Your task to perform on an android device: When is my next appointment? Image 0: 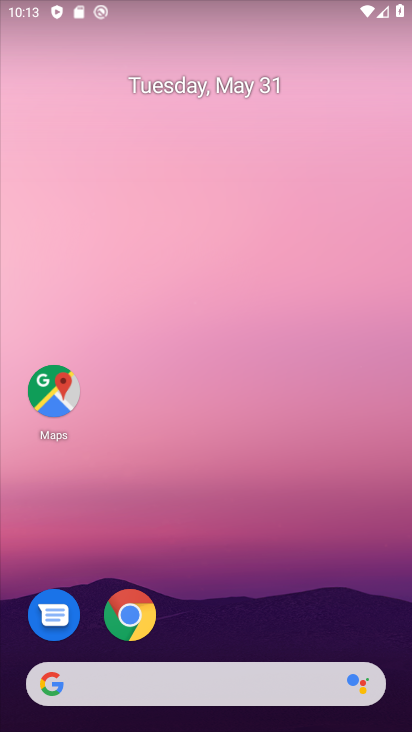
Step 0: drag from (404, 612) to (307, 108)
Your task to perform on an android device: When is my next appointment? Image 1: 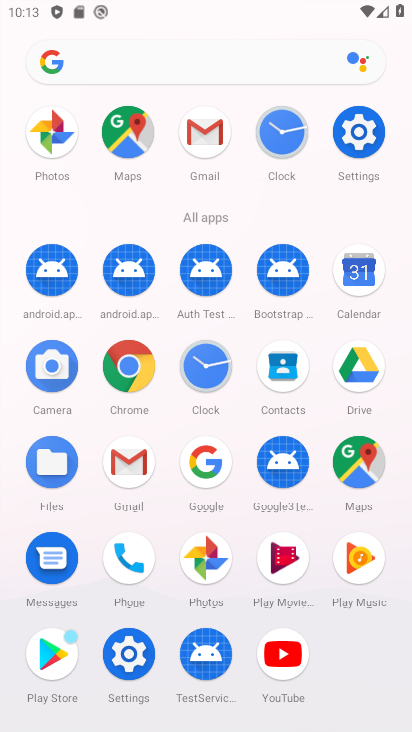
Step 1: click (365, 269)
Your task to perform on an android device: When is my next appointment? Image 2: 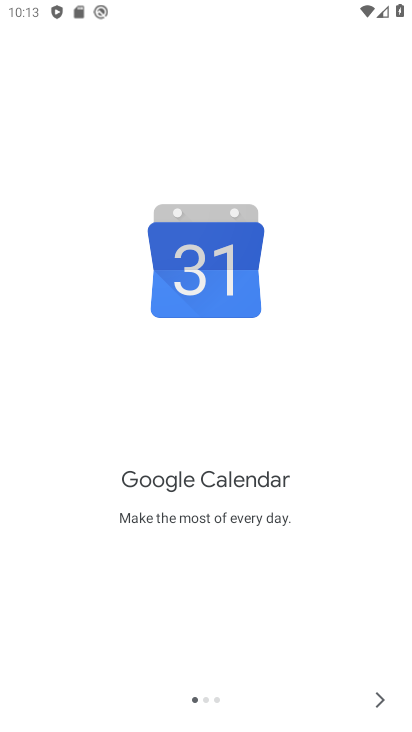
Step 2: press home button
Your task to perform on an android device: When is my next appointment? Image 3: 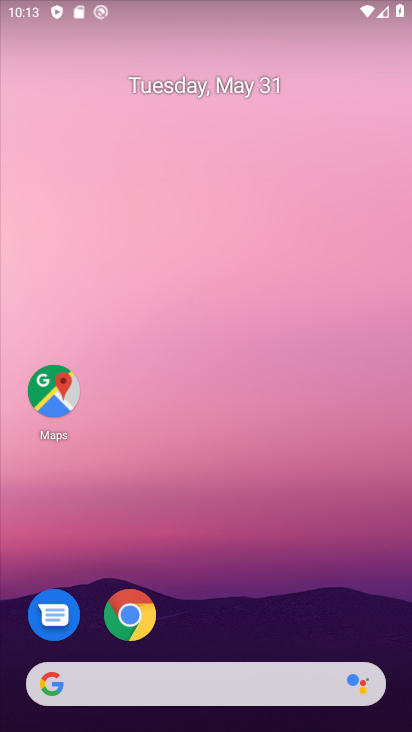
Step 3: drag from (348, 613) to (324, 149)
Your task to perform on an android device: When is my next appointment? Image 4: 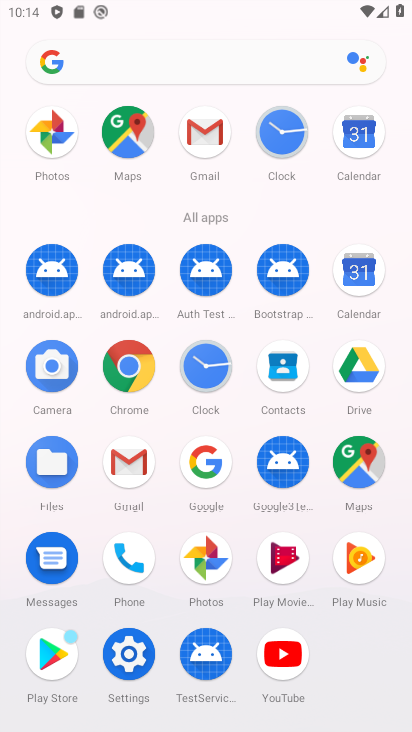
Step 4: click (342, 291)
Your task to perform on an android device: When is my next appointment? Image 5: 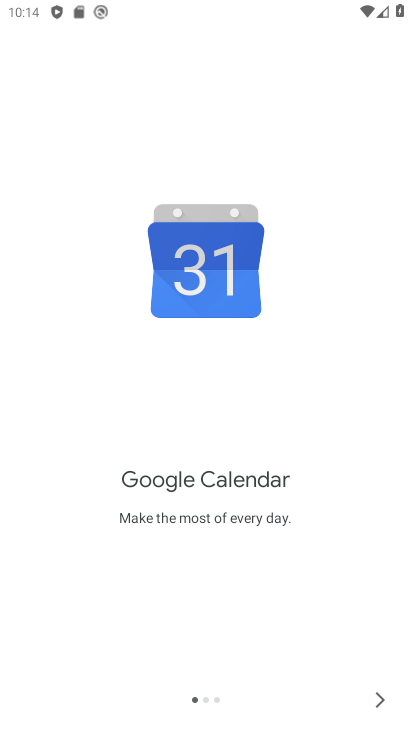
Step 5: click (375, 698)
Your task to perform on an android device: When is my next appointment? Image 6: 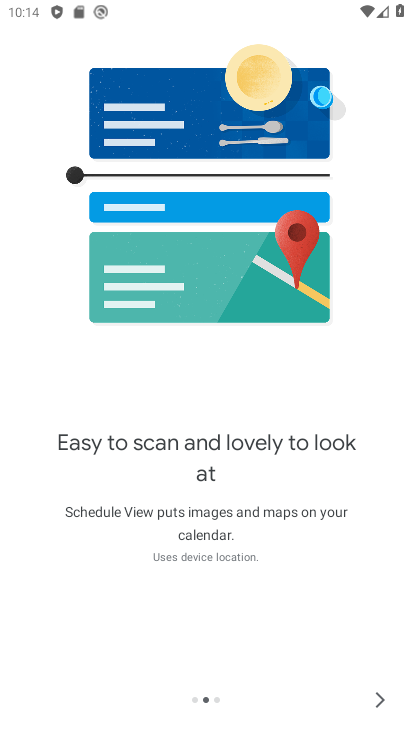
Step 6: click (375, 697)
Your task to perform on an android device: When is my next appointment? Image 7: 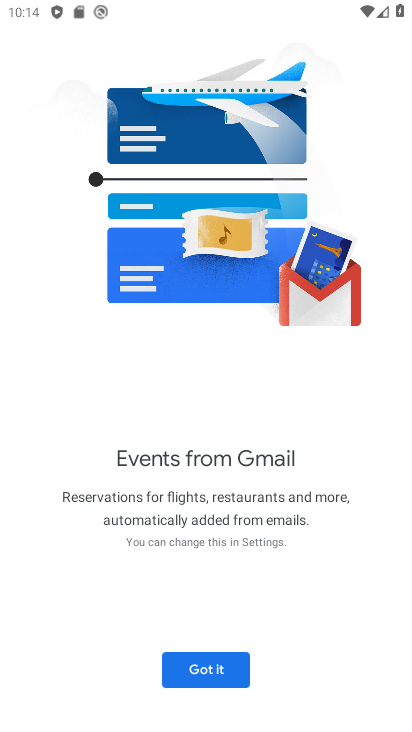
Step 7: click (196, 660)
Your task to perform on an android device: When is my next appointment? Image 8: 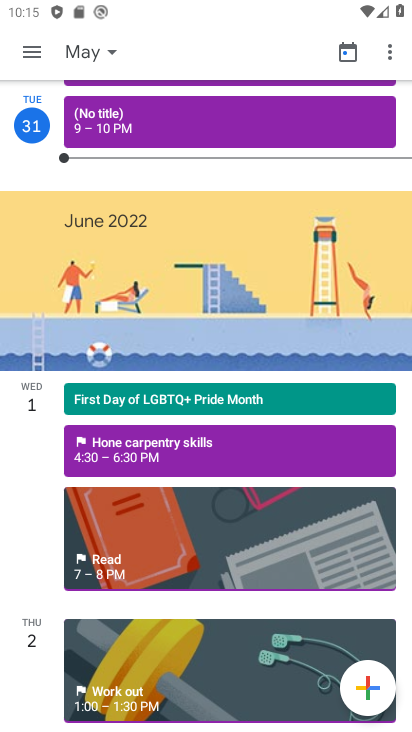
Step 8: task complete